Your task to perform on an android device: Search for sushi restaurants on Maps Image 0: 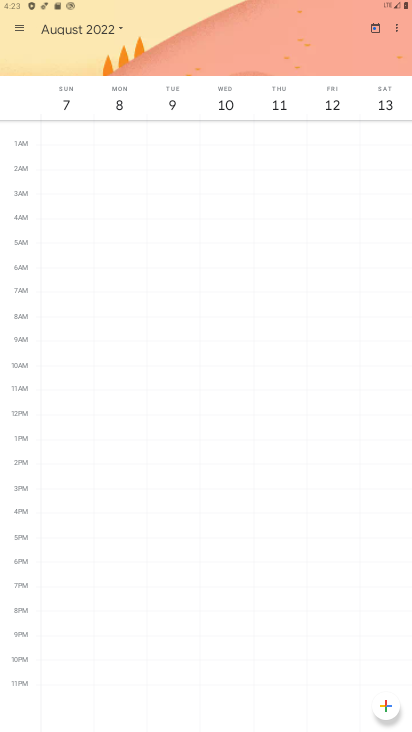
Step 0: press home button
Your task to perform on an android device: Search for sushi restaurants on Maps Image 1: 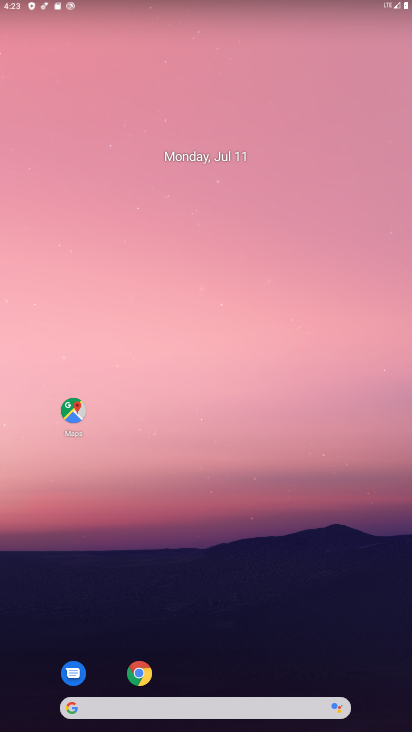
Step 1: drag from (242, 649) to (256, 97)
Your task to perform on an android device: Search for sushi restaurants on Maps Image 2: 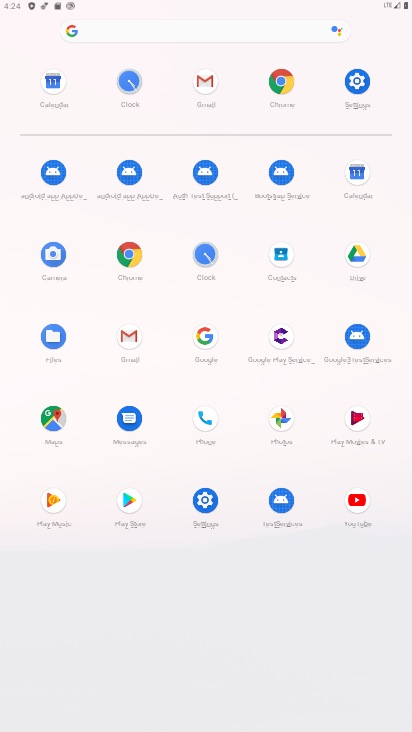
Step 2: click (55, 415)
Your task to perform on an android device: Search for sushi restaurants on Maps Image 3: 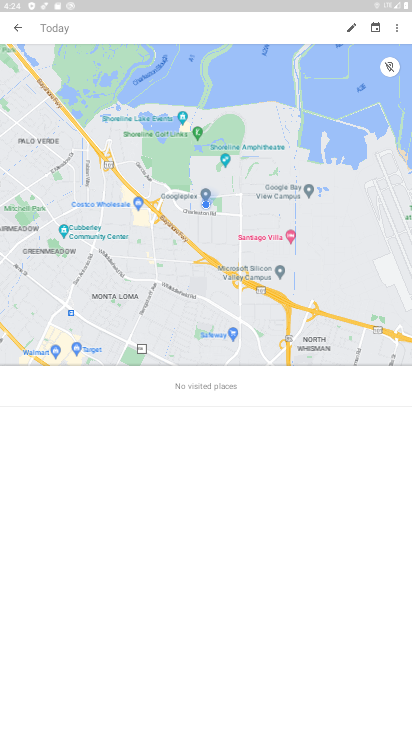
Step 3: click (18, 27)
Your task to perform on an android device: Search for sushi restaurants on Maps Image 4: 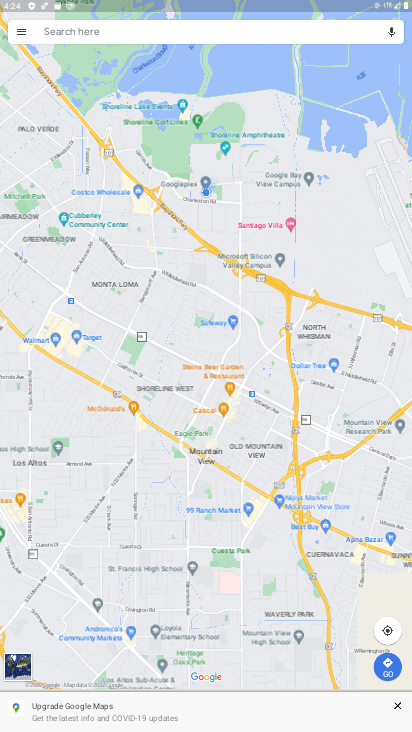
Step 4: click (168, 30)
Your task to perform on an android device: Search for sushi restaurants on Maps Image 5: 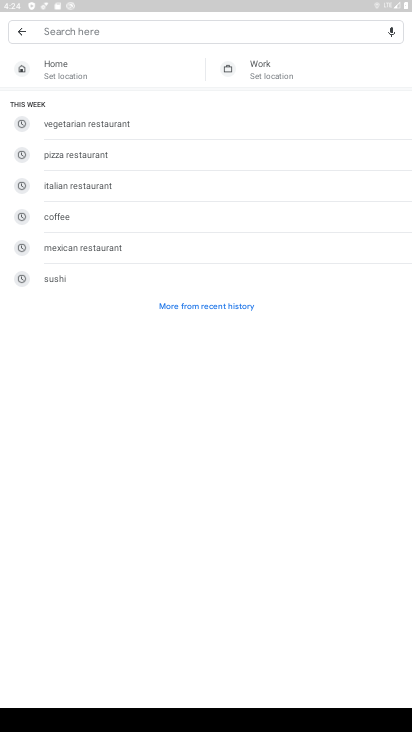
Step 5: type "sushi restaurants"
Your task to perform on an android device: Search for sushi restaurants on Maps Image 6: 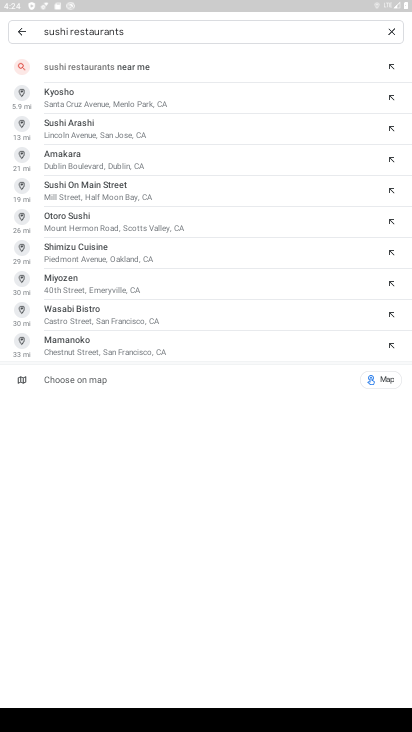
Step 6: press enter
Your task to perform on an android device: Search for sushi restaurants on Maps Image 7: 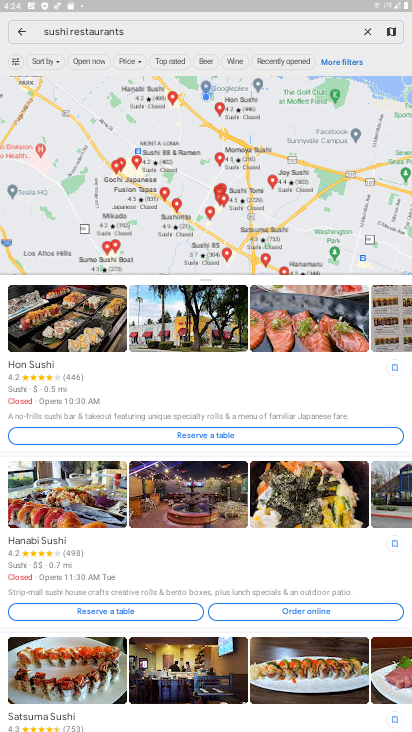
Step 7: task complete